Your task to perform on an android device: Open ESPN.com Image 0: 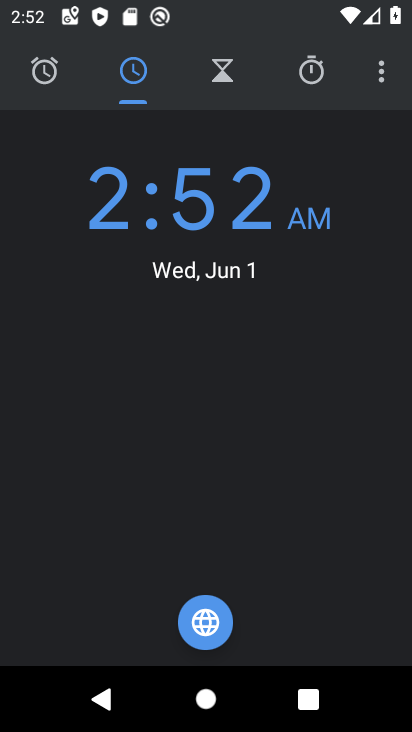
Step 0: press home button
Your task to perform on an android device: Open ESPN.com Image 1: 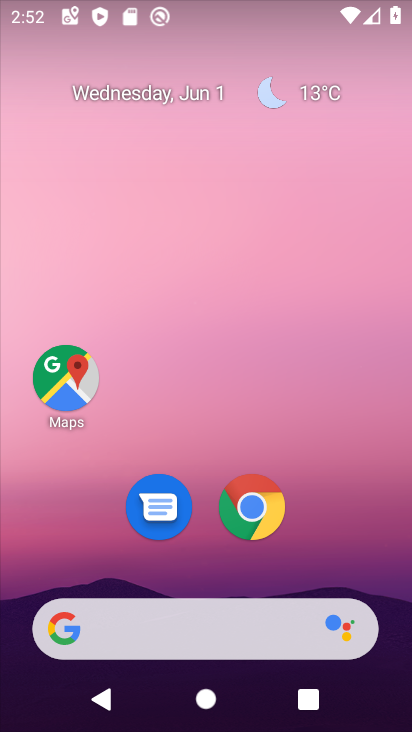
Step 1: click (267, 515)
Your task to perform on an android device: Open ESPN.com Image 2: 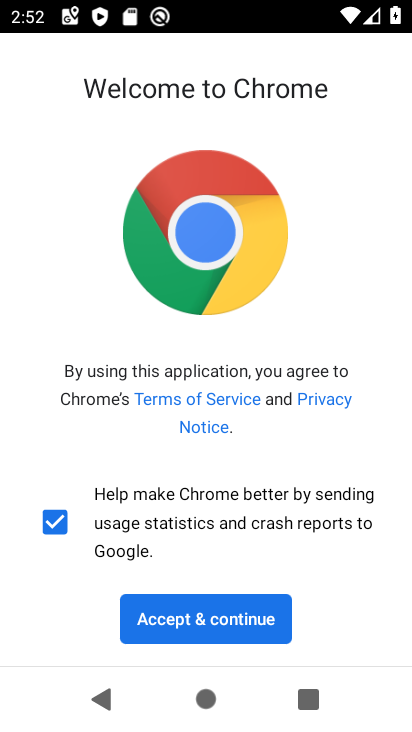
Step 2: click (202, 605)
Your task to perform on an android device: Open ESPN.com Image 3: 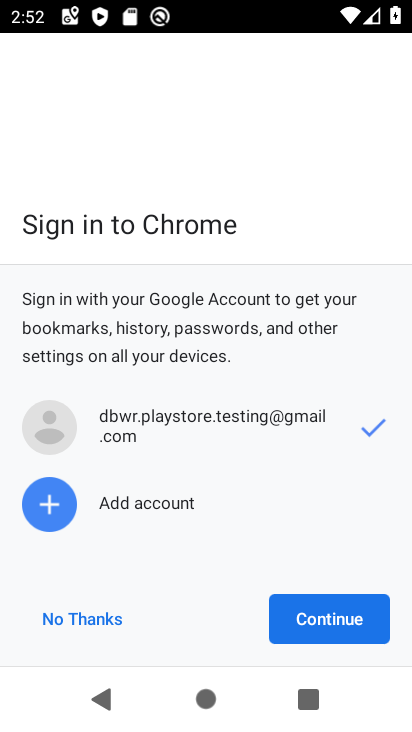
Step 3: click (379, 624)
Your task to perform on an android device: Open ESPN.com Image 4: 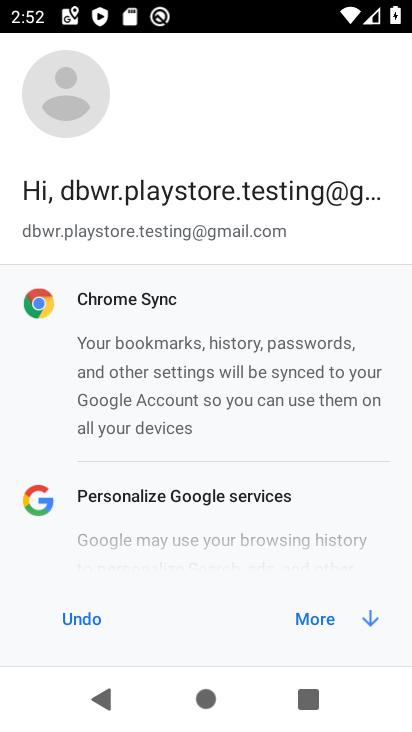
Step 4: click (365, 617)
Your task to perform on an android device: Open ESPN.com Image 5: 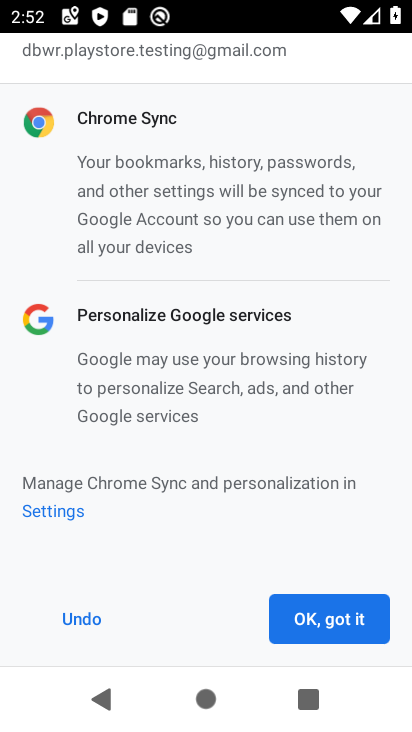
Step 5: click (337, 627)
Your task to perform on an android device: Open ESPN.com Image 6: 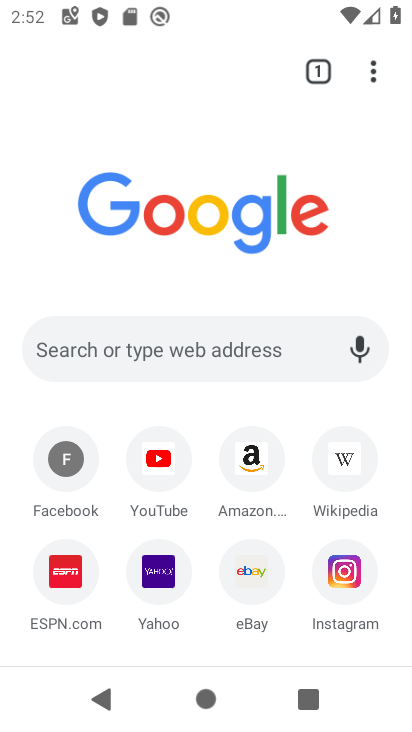
Step 6: click (201, 358)
Your task to perform on an android device: Open ESPN.com Image 7: 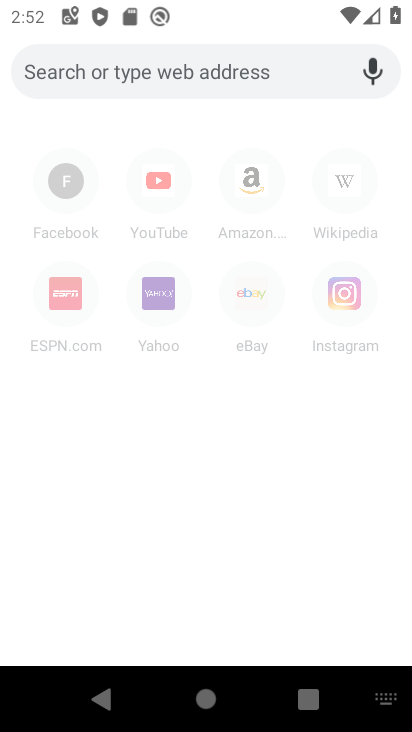
Step 7: click (264, 389)
Your task to perform on an android device: Open ESPN.com Image 8: 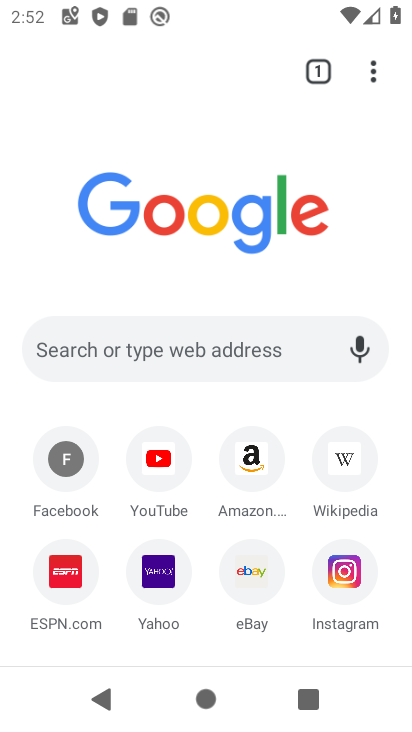
Step 8: click (66, 576)
Your task to perform on an android device: Open ESPN.com Image 9: 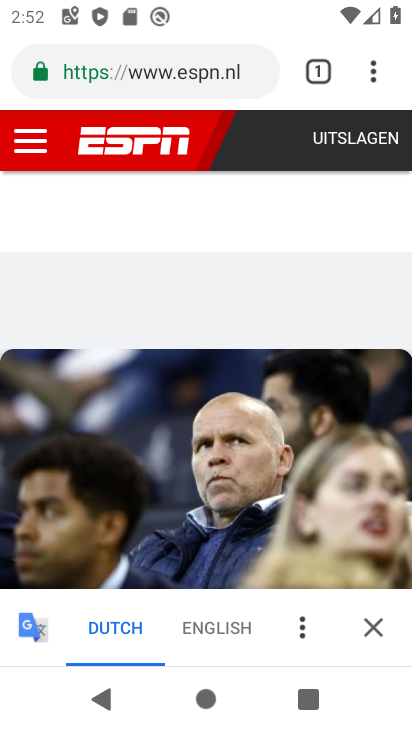
Step 9: task complete